Your task to perform on an android device: open device folders in google photos Image 0: 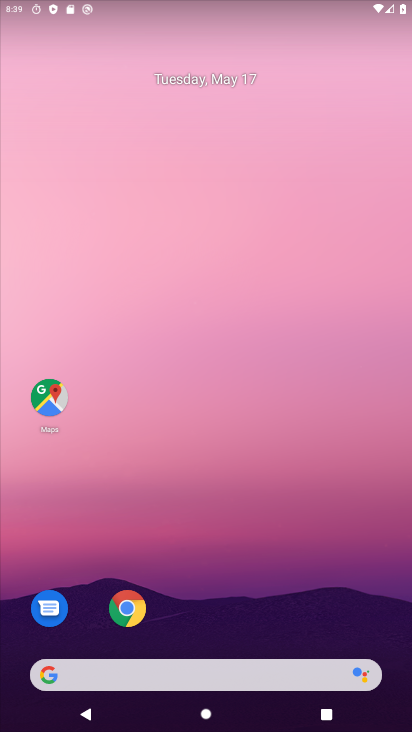
Step 0: drag from (400, 617) to (314, 112)
Your task to perform on an android device: open device folders in google photos Image 1: 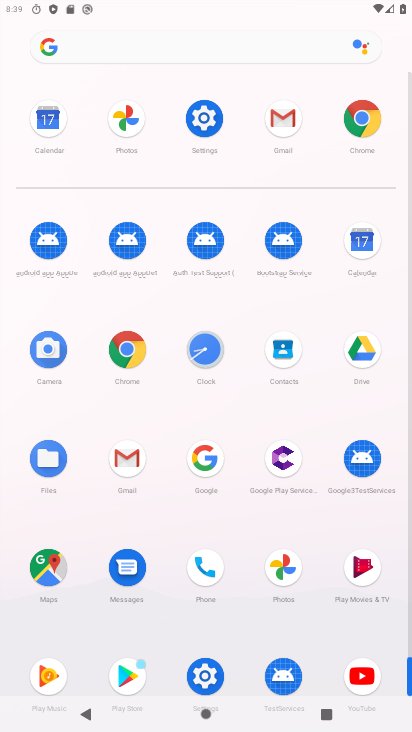
Step 1: click (297, 571)
Your task to perform on an android device: open device folders in google photos Image 2: 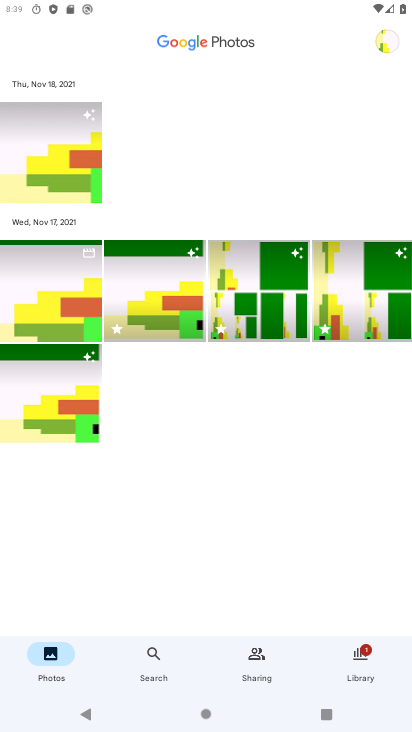
Step 2: click (390, 44)
Your task to perform on an android device: open device folders in google photos Image 3: 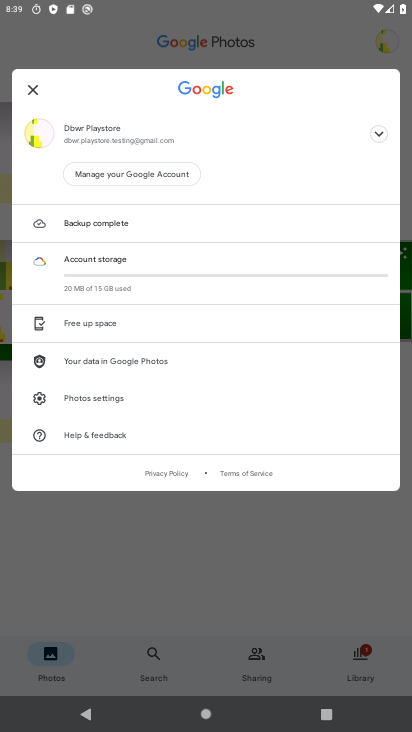
Step 3: task complete